Your task to perform on an android device: clear all cookies in the chrome app Image 0: 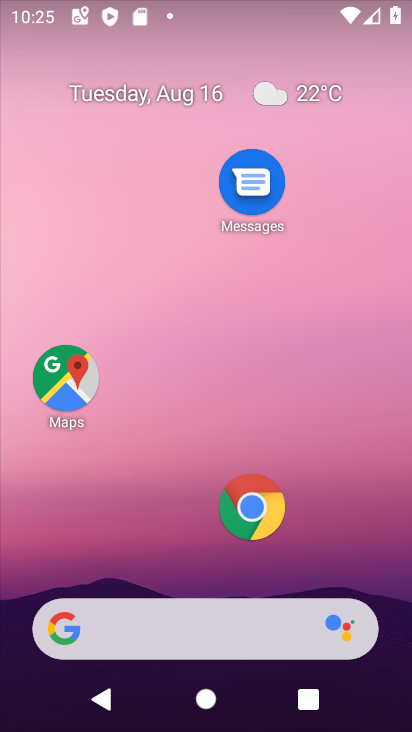
Step 0: click (253, 522)
Your task to perform on an android device: clear all cookies in the chrome app Image 1: 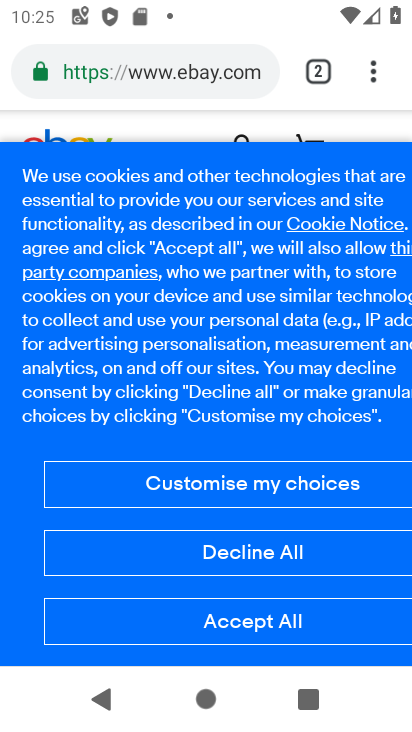
Step 1: drag from (371, 73) to (107, 396)
Your task to perform on an android device: clear all cookies in the chrome app Image 2: 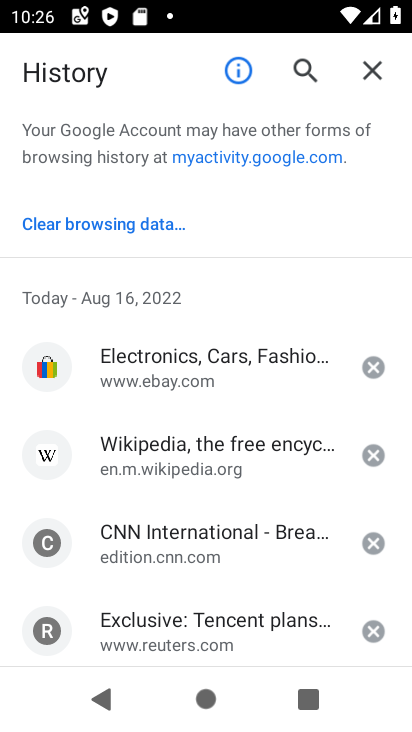
Step 2: click (118, 217)
Your task to perform on an android device: clear all cookies in the chrome app Image 3: 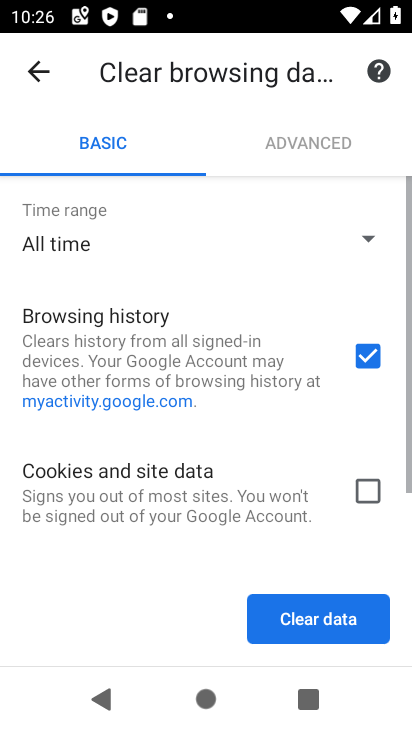
Step 3: click (355, 485)
Your task to perform on an android device: clear all cookies in the chrome app Image 4: 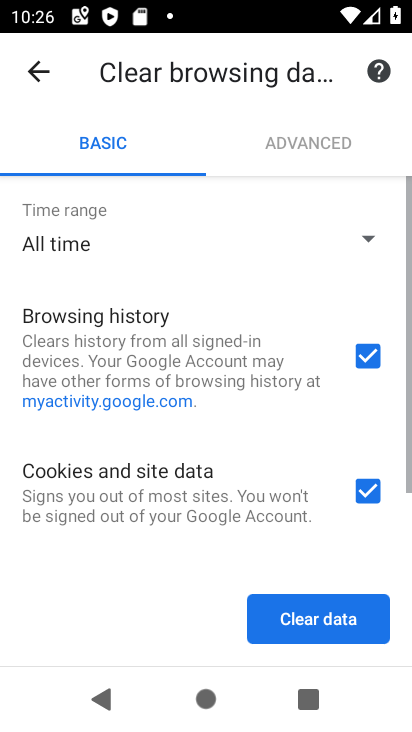
Step 4: click (366, 348)
Your task to perform on an android device: clear all cookies in the chrome app Image 5: 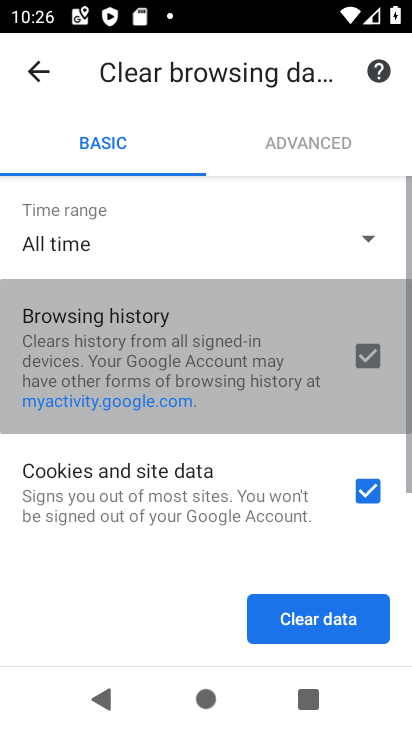
Step 5: drag from (205, 481) to (292, 120)
Your task to perform on an android device: clear all cookies in the chrome app Image 6: 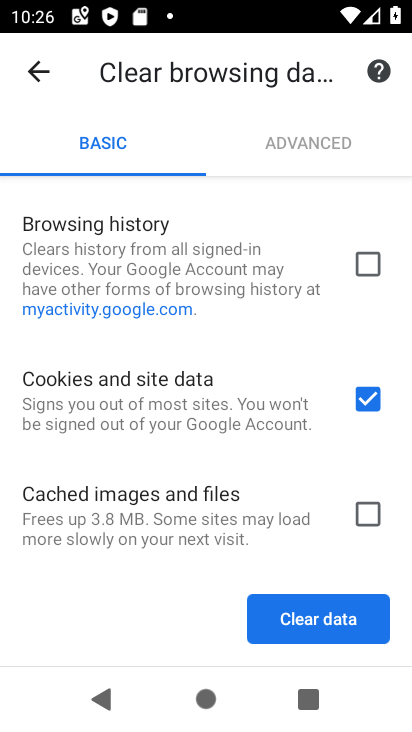
Step 6: click (289, 603)
Your task to perform on an android device: clear all cookies in the chrome app Image 7: 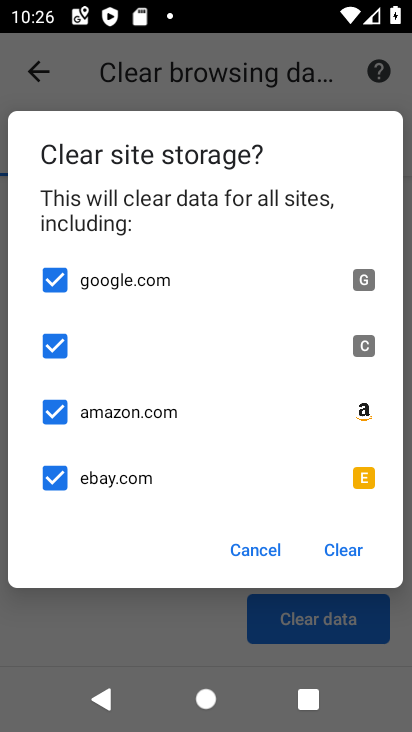
Step 7: click (338, 552)
Your task to perform on an android device: clear all cookies in the chrome app Image 8: 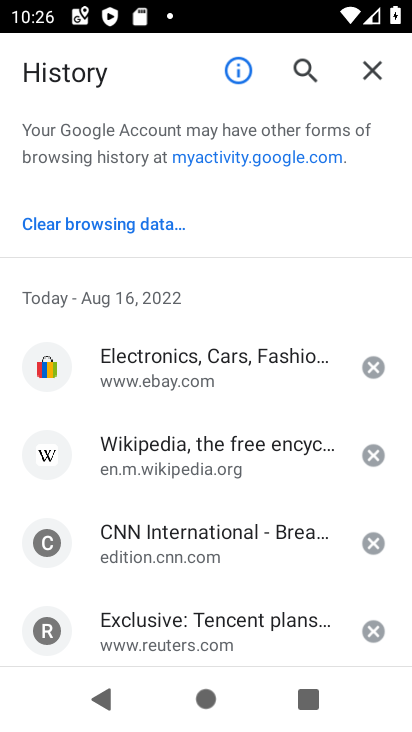
Step 8: task complete